Your task to perform on an android device: Go to location settings Image 0: 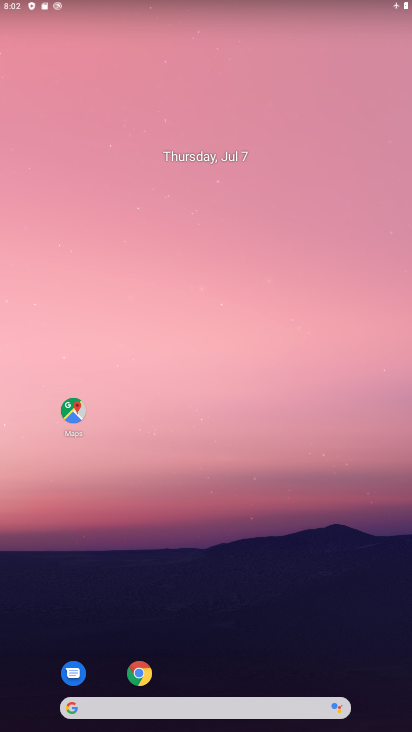
Step 0: drag from (241, 683) to (164, 16)
Your task to perform on an android device: Go to location settings Image 1: 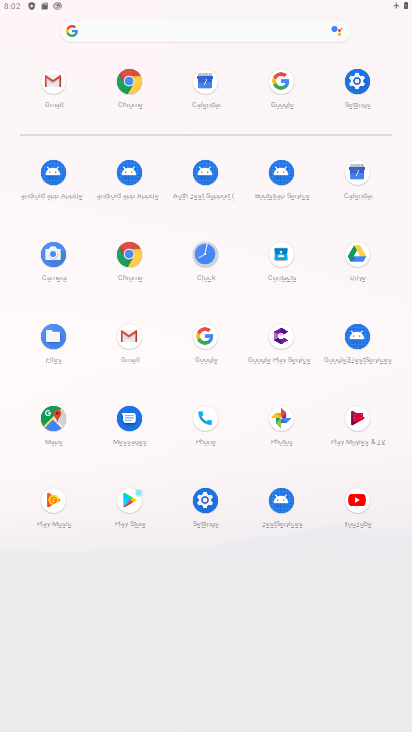
Step 1: click (205, 507)
Your task to perform on an android device: Go to location settings Image 2: 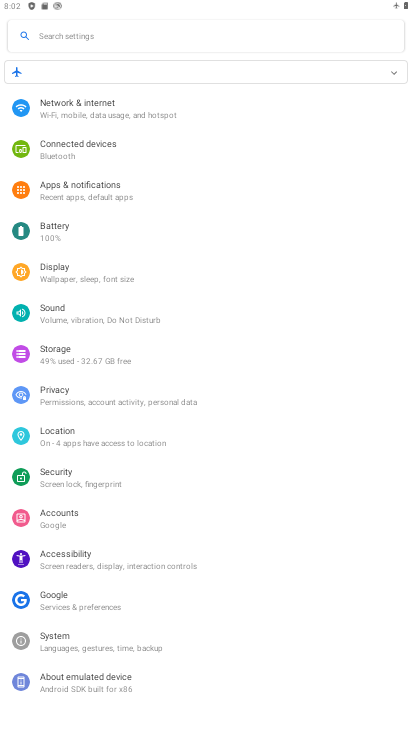
Step 2: click (55, 443)
Your task to perform on an android device: Go to location settings Image 3: 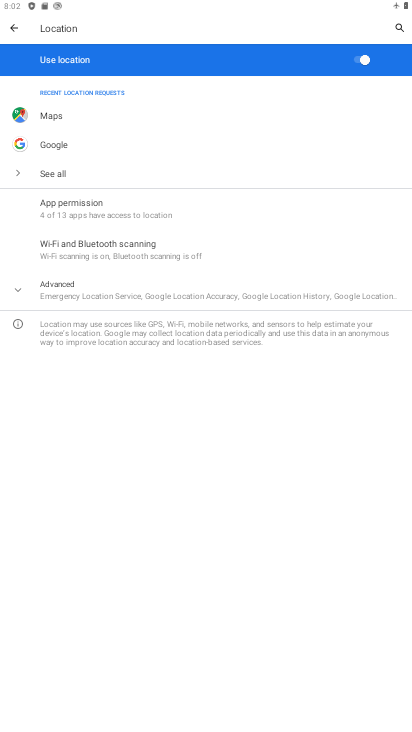
Step 3: task complete